Your task to perform on an android device: Search for pizza restaurants on Maps Image 0: 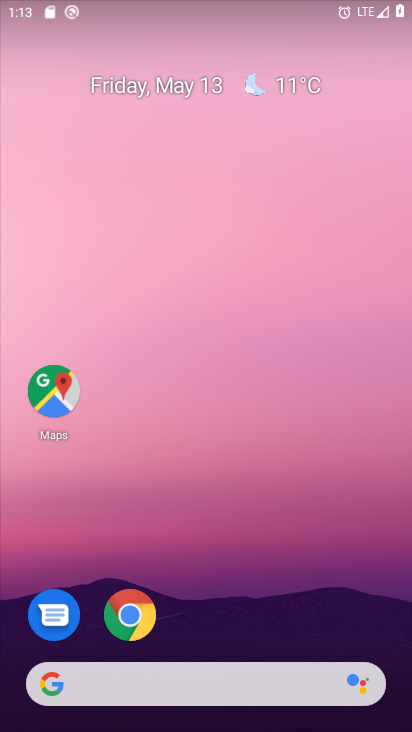
Step 0: click (54, 386)
Your task to perform on an android device: Search for pizza restaurants on Maps Image 1: 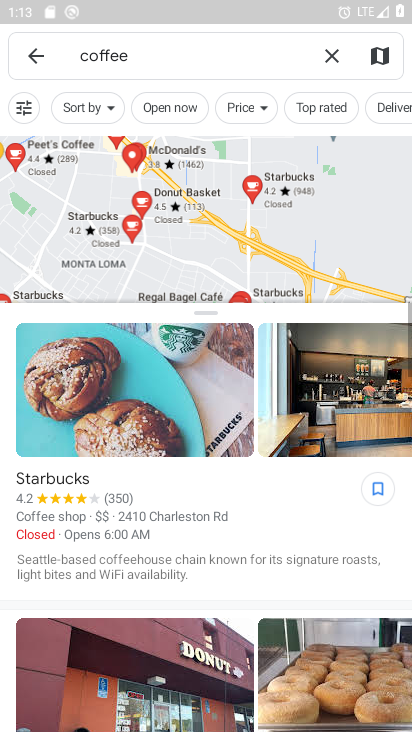
Step 1: click (326, 52)
Your task to perform on an android device: Search for pizza restaurants on Maps Image 2: 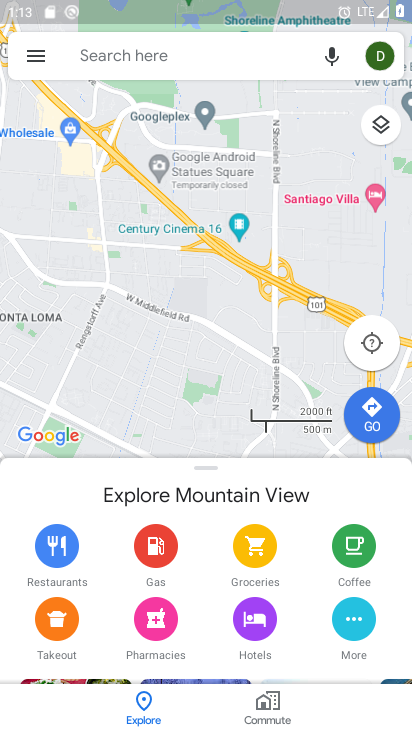
Step 2: click (249, 56)
Your task to perform on an android device: Search for pizza restaurants on Maps Image 3: 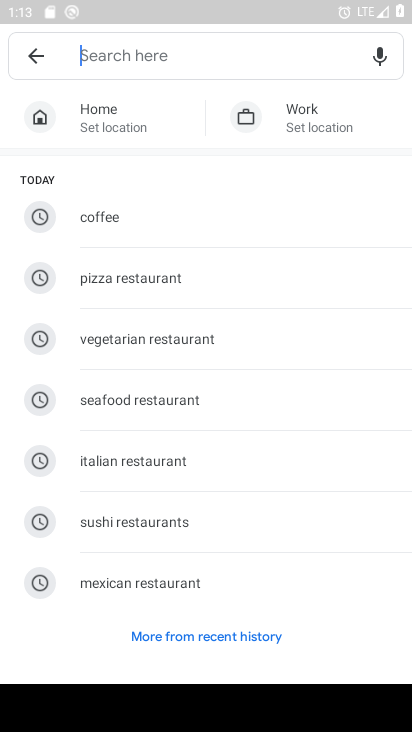
Step 3: type "Plaza restaurants"
Your task to perform on an android device: Search for pizza restaurants on Maps Image 4: 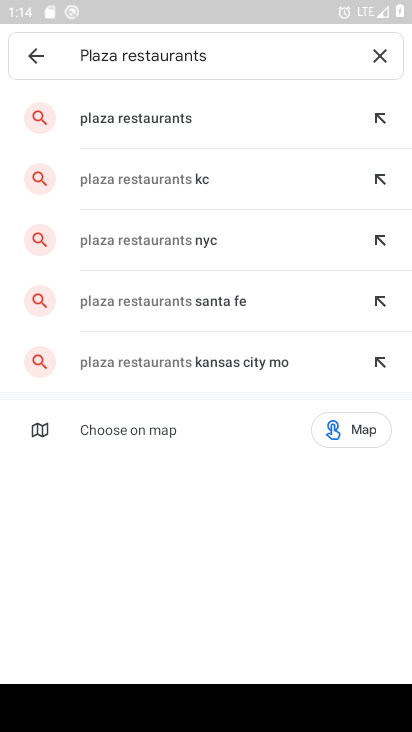
Step 4: click (171, 111)
Your task to perform on an android device: Search for pizza restaurants on Maps Image 5: 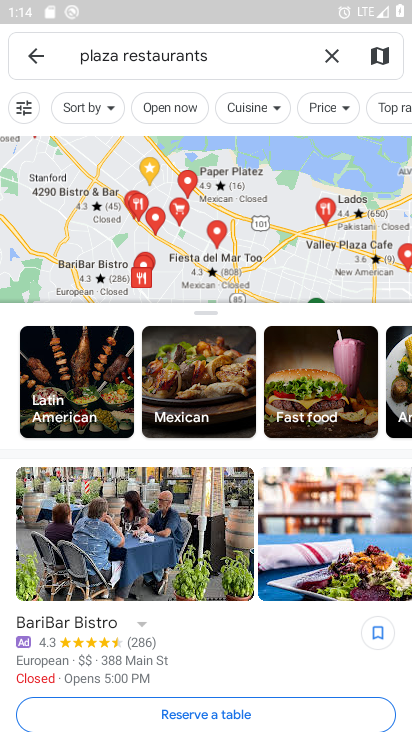
Step 5: task complete